Your task to perform on an android device: Open display settings Image 0: 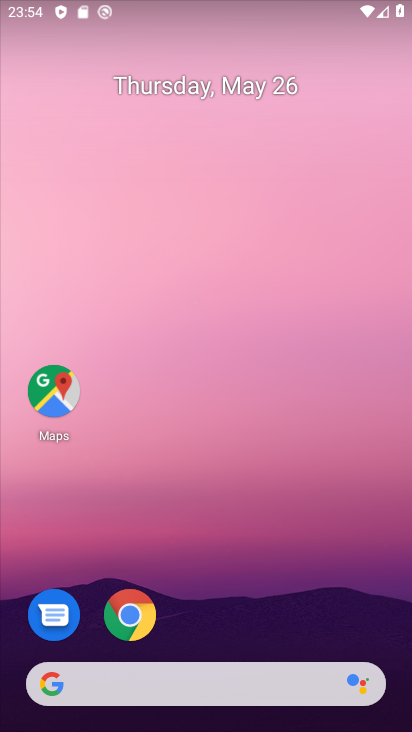
Step 0: drag from (341, 631) to (345, 277)
Your task to perform on an android device: Open display settings Image 1: 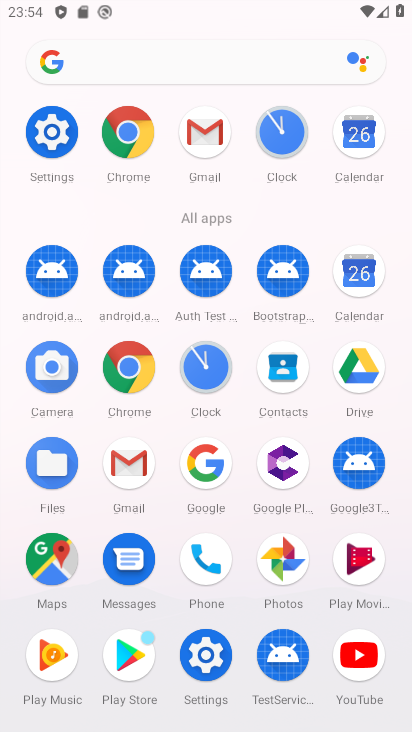
Step 1: click (212, 661)
Your task to perform on an android device: Open display settings Image 2: 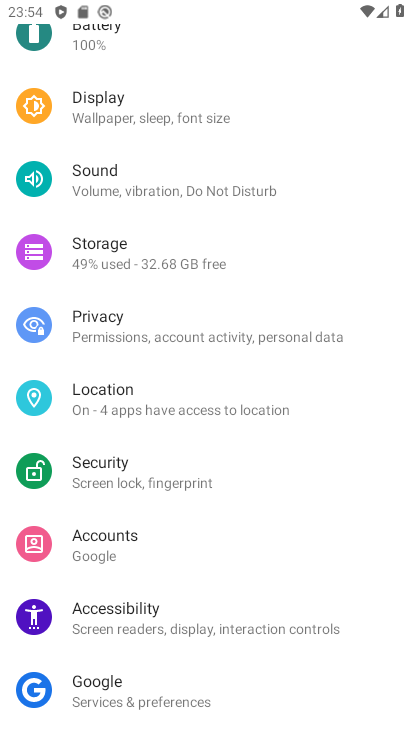
Step 2: drag from (362, 649) to (374, 508)
Your task to perform on an android device: Open display settings Image 3: 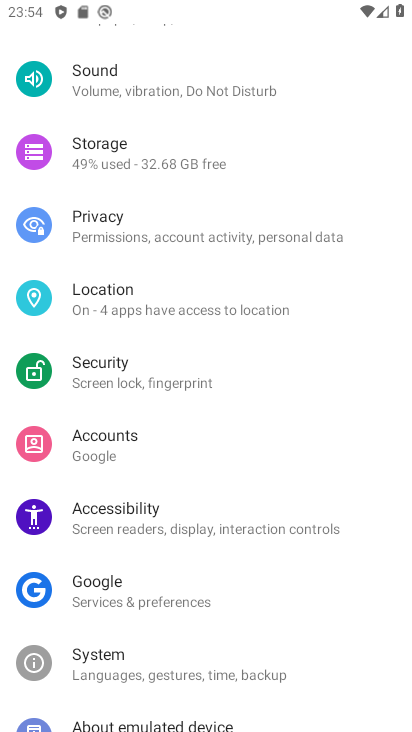
Step 3: drag from (354, 576) to (376, 340)
Your task to perform on an android device: Open display settings Image 4: 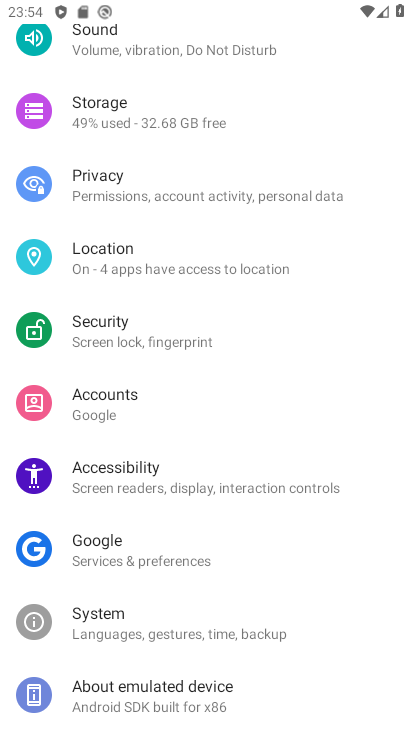
Step 4: drag from (356, 267) to (355, 528)
Your task to perform on an android device: Open display settings Image 5: 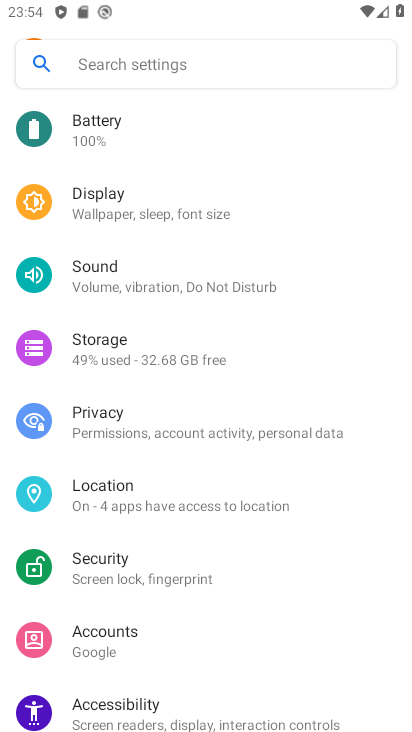
Step 5: drag from (352, 295) to (357, 461)
Your task to perform on an android device: Open display settings Image 6: 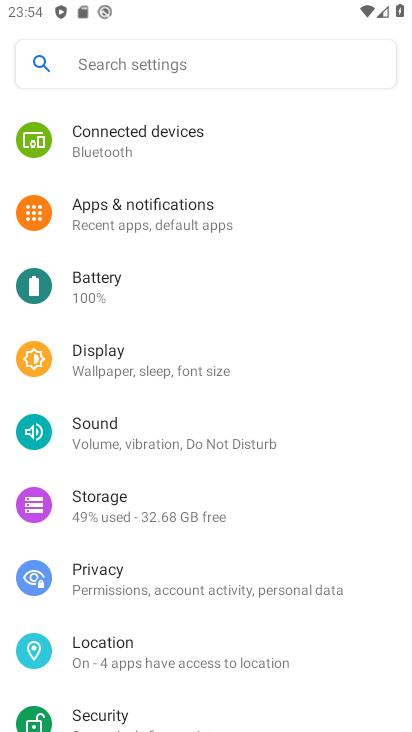
Step 6: drag from (356, 321) to (357, 435)
Your task to perform on an android device: Open display settings Image 7: 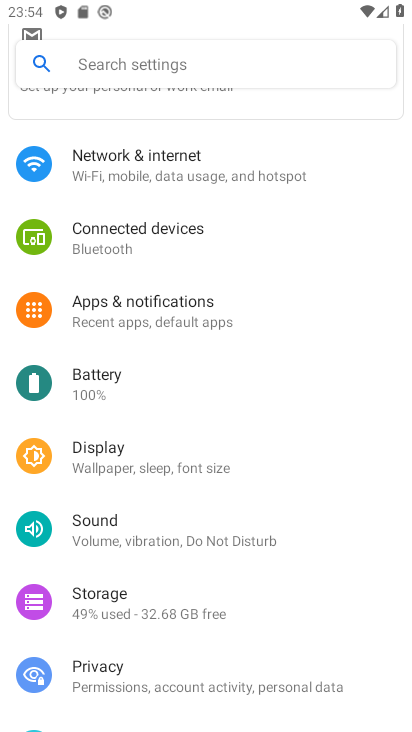
Step 7: drag from (358, 266) to (354, 432)
Your task to perform on an android device: Open display settings Image 8: 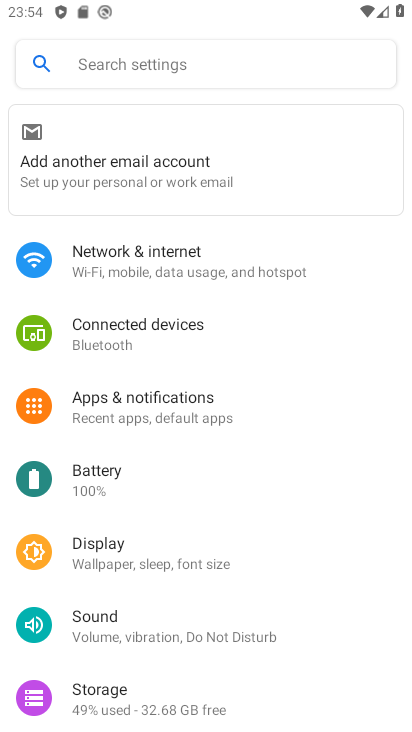
Step 8: drag from (347, 359) to (336, 464)
Your task to perform on an android device: Open display settings Image 9: 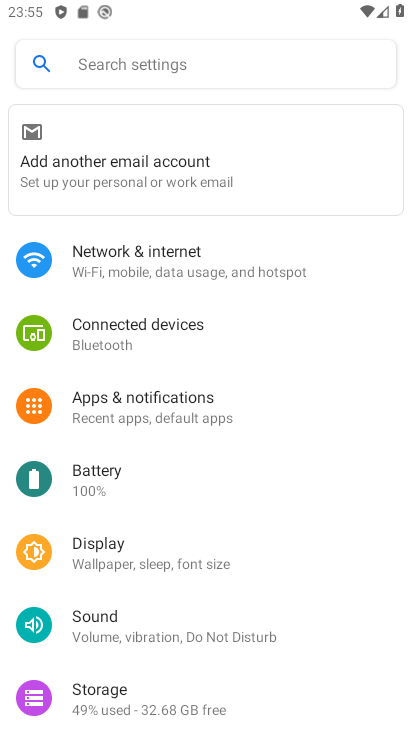
Step 9: click (219, 571)
Your task to perform on an android device: Open display settings Image 10: 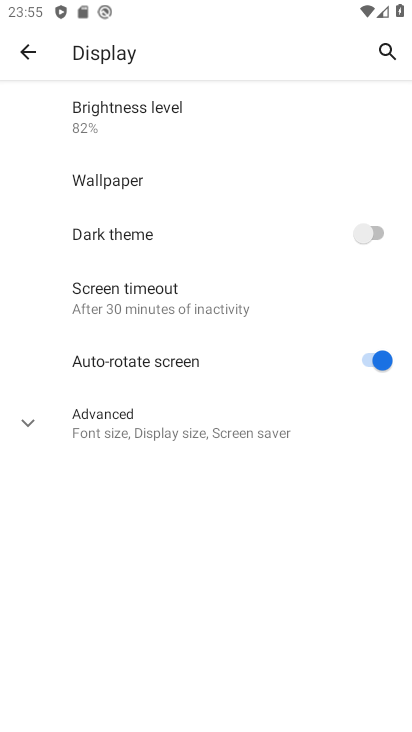
Step 10: task complete